Your task to perform on an android device: find which apps use the phone's location Image 0: 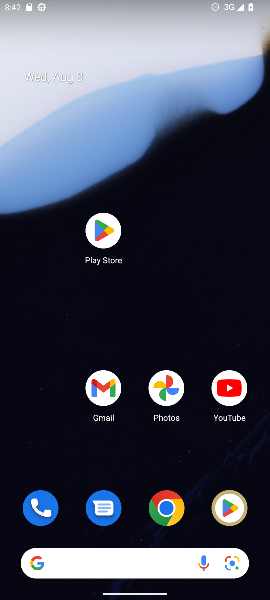
Step 0: drag from (154, 535) to (90, 74)
Your task to perform on an android device: find which apps use the phone's location Image 1: 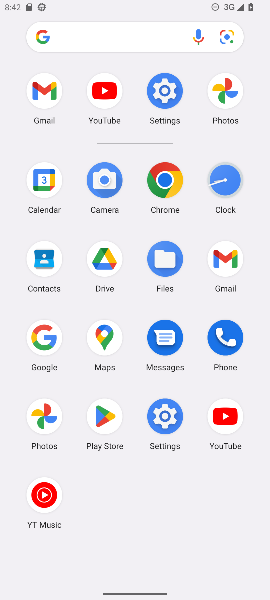
Step 1: click (179, 423)
Your task to perform on an android device: find which apps use the phone's location Image 2: 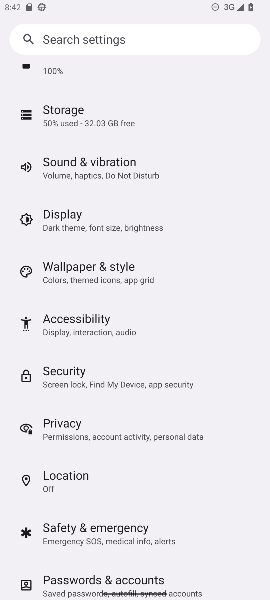
Step 2: drag from (77, 130) to (64, 579)
Your task to perform on an android device: find which apps use the phone's location Image 3: 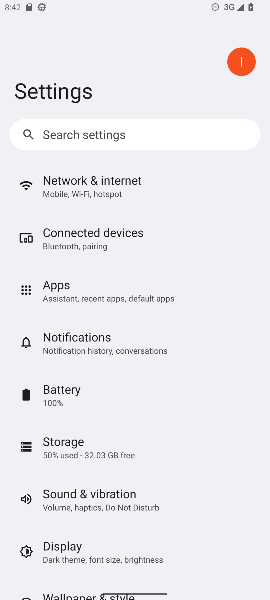
Step 3: drag from (106, 491) to (49, 53)
Your task to perform on an android device: find which apps use the phone's location Image 4: 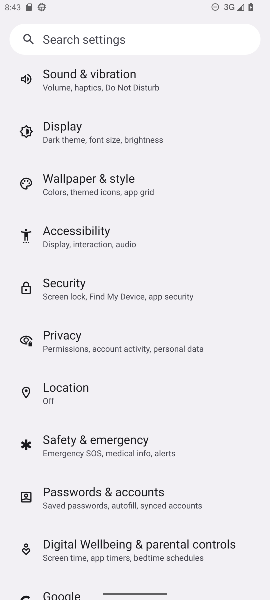
Step 4: click (70, 395)
Your task to perform on an android device: find which apps use the phone's location Image 5: 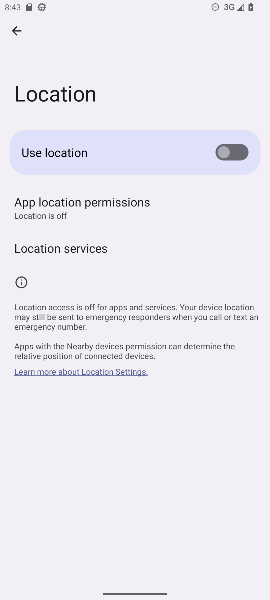
Step 5: click (43, 210)
Your task to perform on an android device: find which apps use the phone's location Image 6: 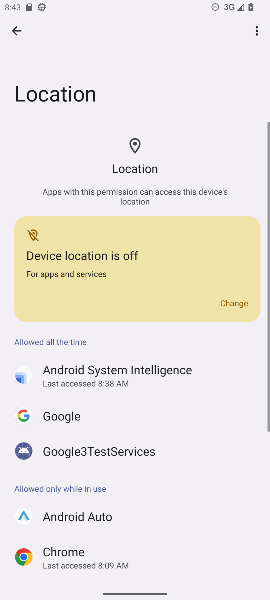
Step 6: task complete